Your task to perform on an android device: turn on the 24-hour format for clock Image 0: 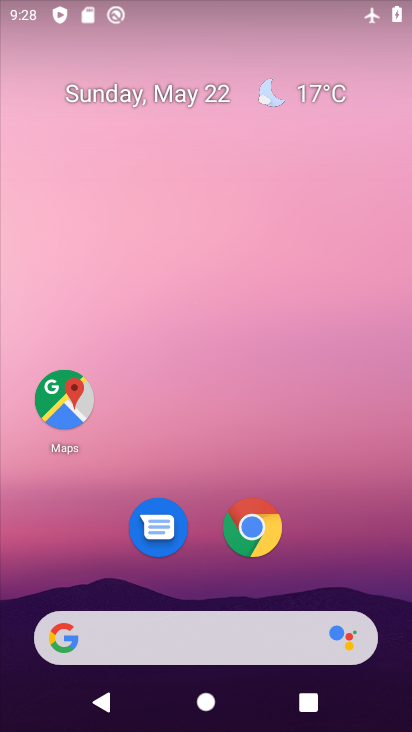
Step 0: drag from (359, 533) to (368, 6)
Your task to perform on an android device: turn on the 24-hour format for clock Image 1: 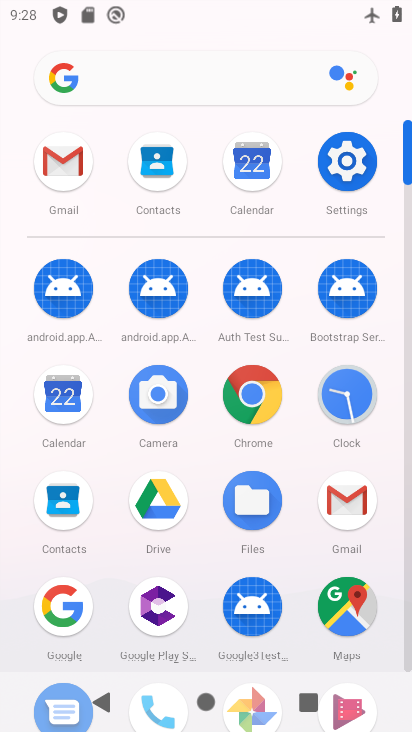
Step 1: click (337, 387)
Your task to perform on an android device: turn on the 24-hour format for clock Image 2: 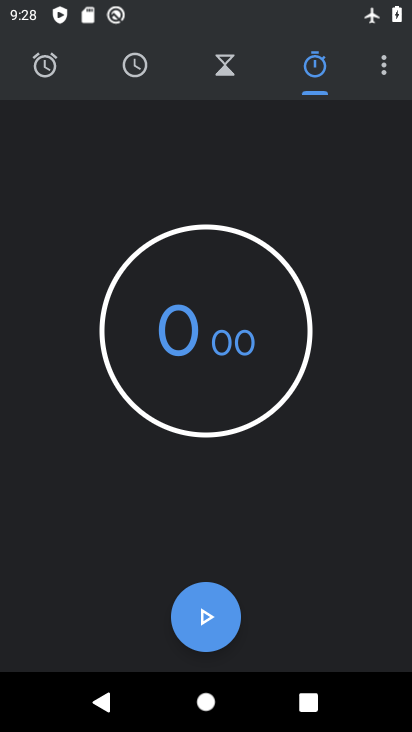
Step 2: click (387, 67)
Your task to perform on an android device: turn on the 24-hour format for clock Image 3: 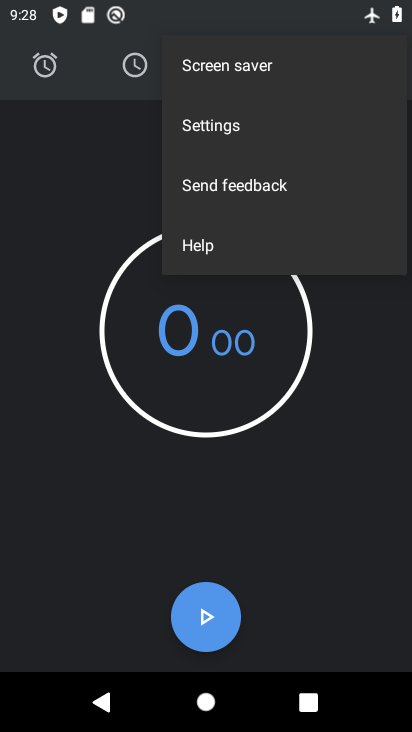
Step 3: click (219, 131)
Your task to perform on an android device: turn on the 24-hour format for clock Image 4: 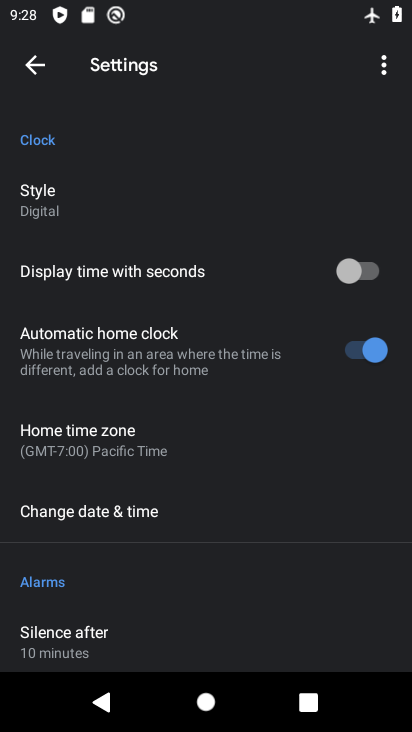
Step 4: click (102, 510)
Your task to perform on an android device: turn on the 24-hour format for clock Image 5: 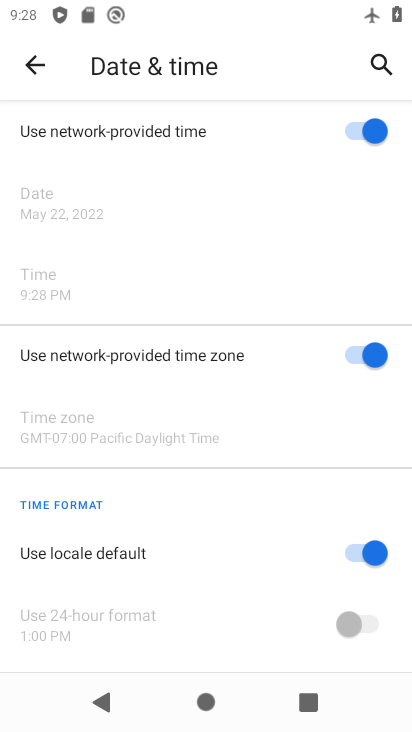
Step 5: drag from (276, 566) to (275, 388)
Your task to perform on an android device: turn on the 24-hour format for clock Image 6: 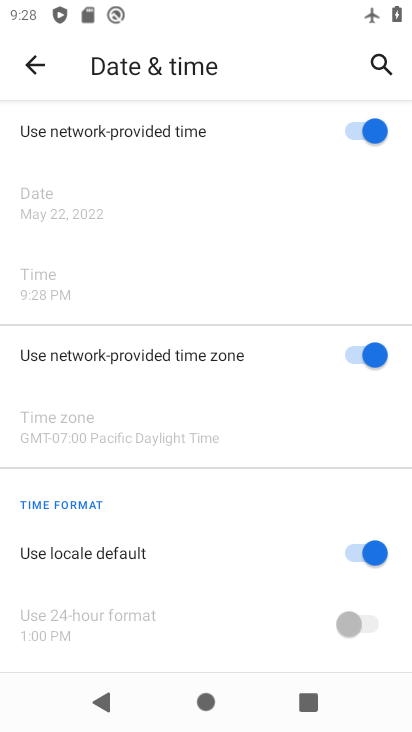
Step 6: click (387, 543)
Your task to perform on an android device: turn on the 24-hour format for clock Image 7: 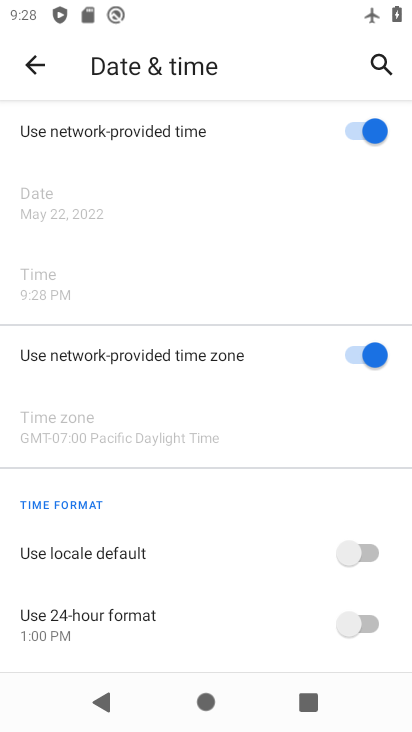
Step 7: click (352, 632)
Your task to perform on an android device: turn on the 24-hour format for clock Image 8: 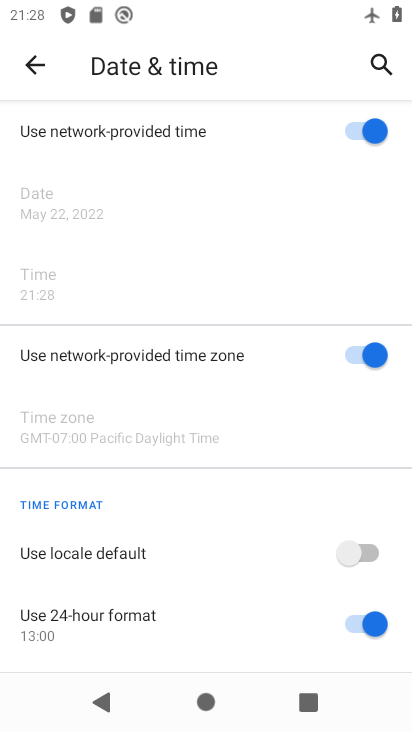
Step 8: task complete